Your task to perform on an android device: Search for a coffee table on IKEA Image 0: 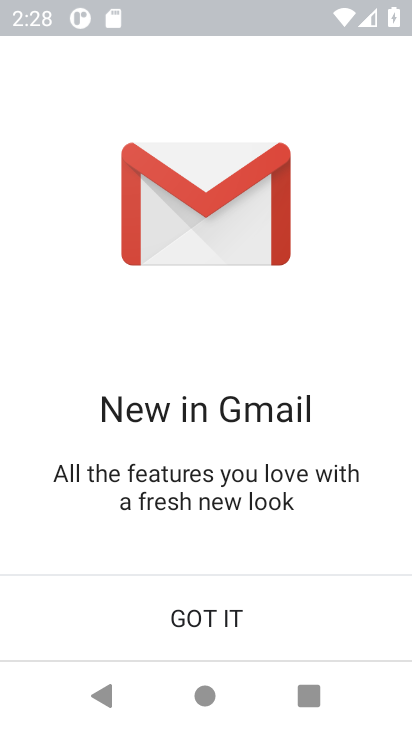
Step 0: click (249, 613)
Your task to perform on an android device: Search for a coffee table on IKEA Image 1: 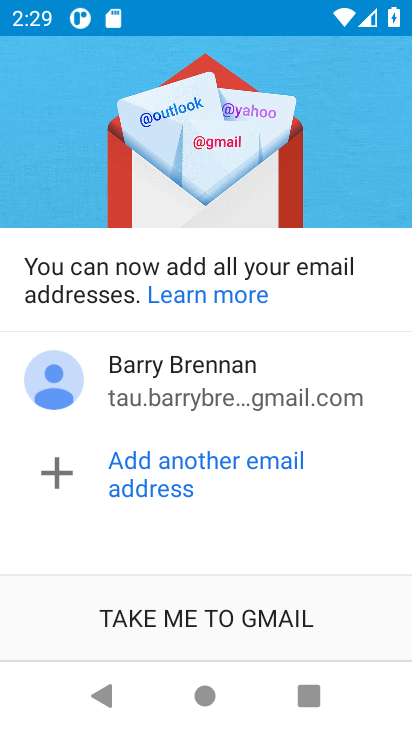
Step 1: press back button
Your task to perform on an android device: Search for a coffee table on IKEA Image 2: 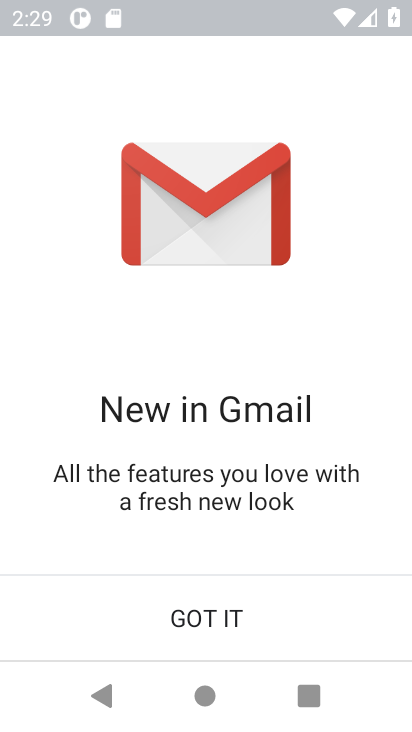
Step 2: press home button
Your task to perform on an android device: Search for a coffee table on IKEA Image 3: 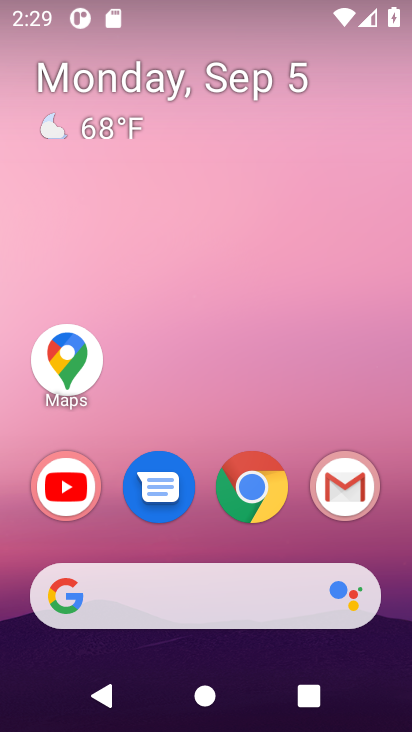
Step 3: click (261, 478)
Your task to perform on an android device: Search for a coffee table on IKEA Image 4: 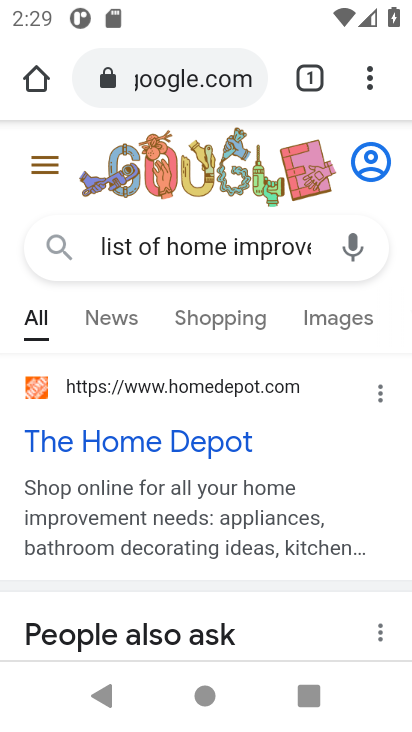
Step 4: click (167, 61)
Your task to perform on an android device: Search for a coffee table on IKEA Image 5: 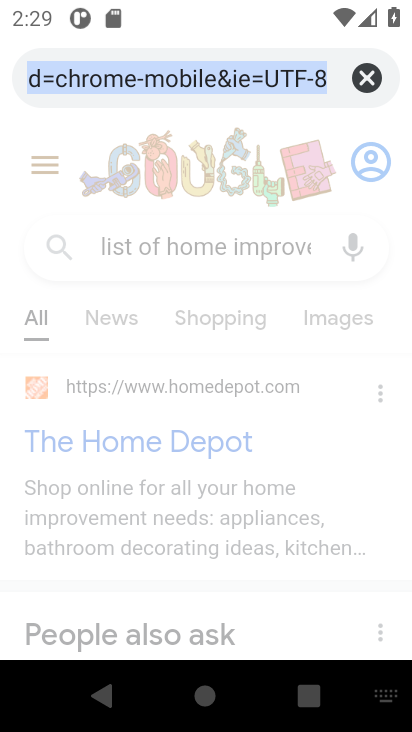
Step 5: click (367, 73)
Your task to perform on an android device: Search for a coffee table on IKEA Image 6: 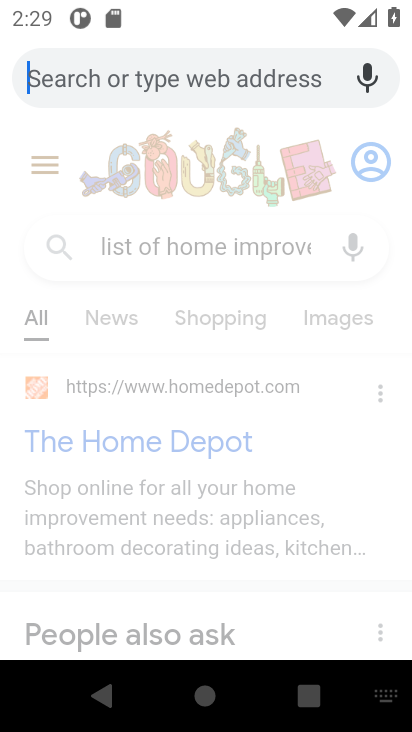
Step 6: type "coffee table on IKEA"
Your task to perform on an android device: Search for a coffee table on IKEA Image 7: 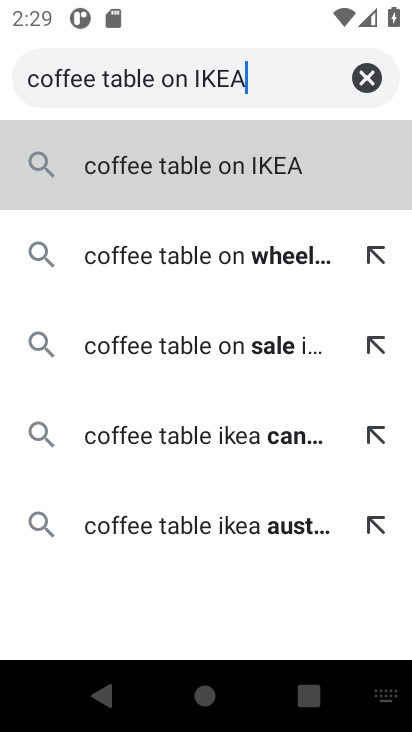
Step 7: click (183, 170)
Your task to perform on an android device: Search for a coffee table on IKEA Image 8: 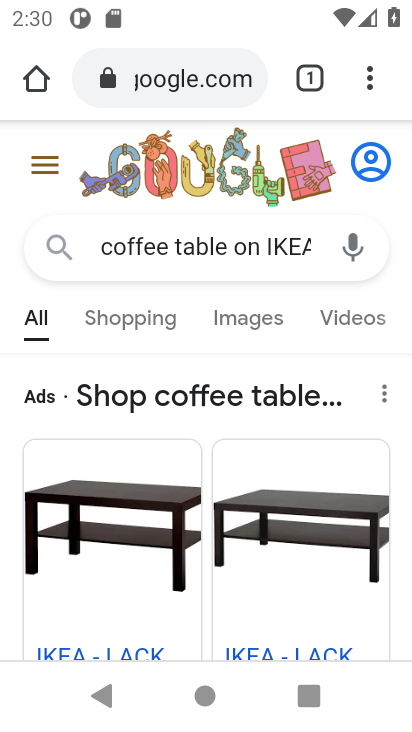
Step 8: task complete